Your task to perform on an android device: Go to privacy settings Image 0: 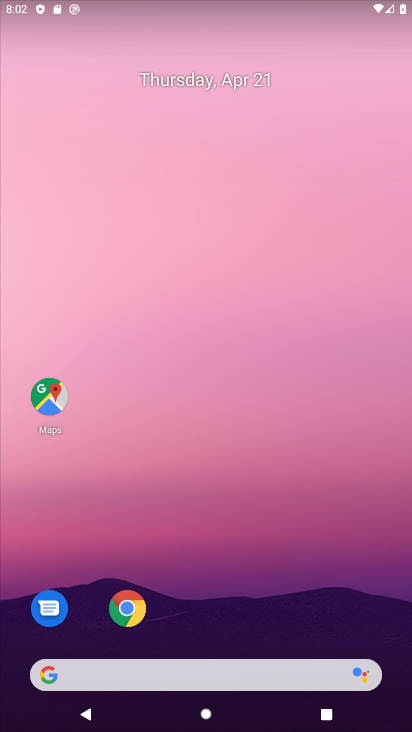
Step 0: drag from (263, 620) to (271, 26)
Your task to perform on an android device: Go to privacy settings Image 1: 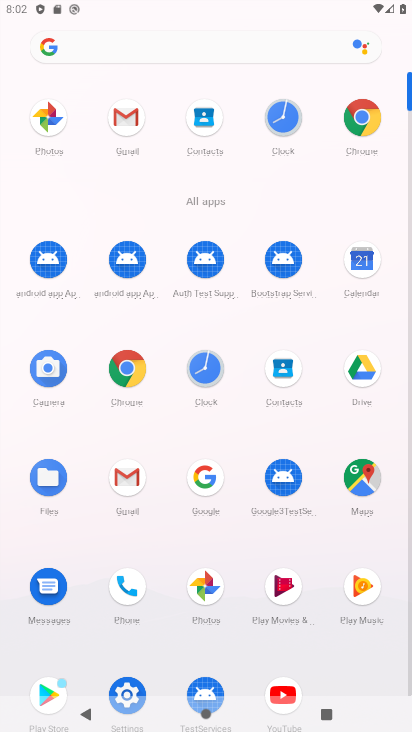
Step 1: click (125, 690)
Your task to perform on an android device: Go to privacy settings Image 2: 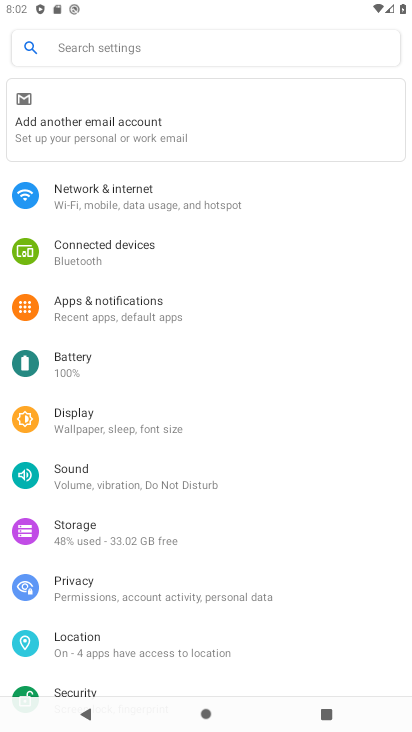
Step 2: click (118, 592)
Your task to perform on an android device: Go to privacy settings Image 3: 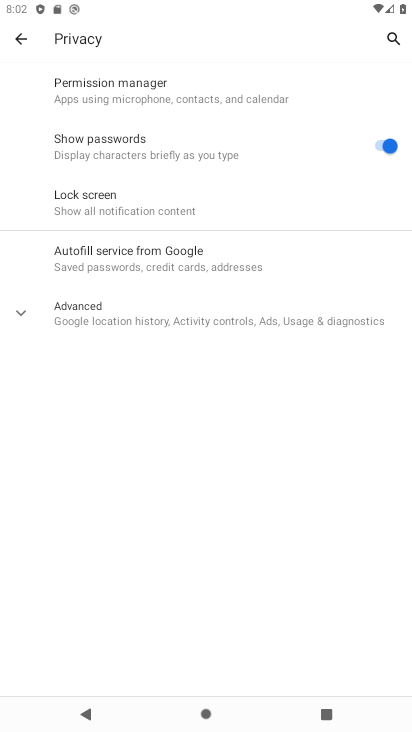
Step 3: task complete